Your task to perform on an android device: Go to Yahoo.com Image 0: 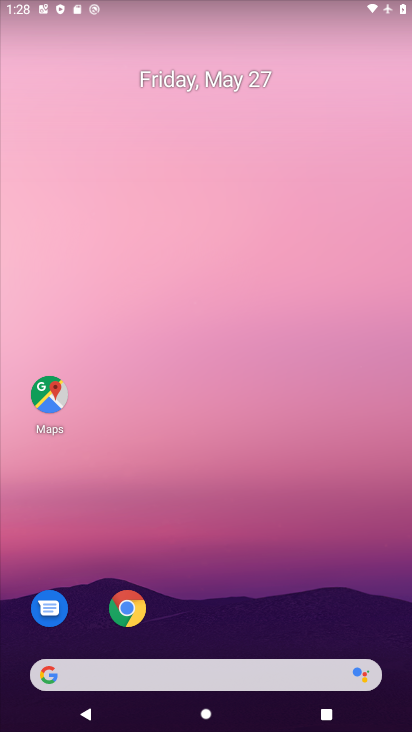
Step 0: press home button
Your task to perform on an android device: Go to Yahoo.com Image 1: 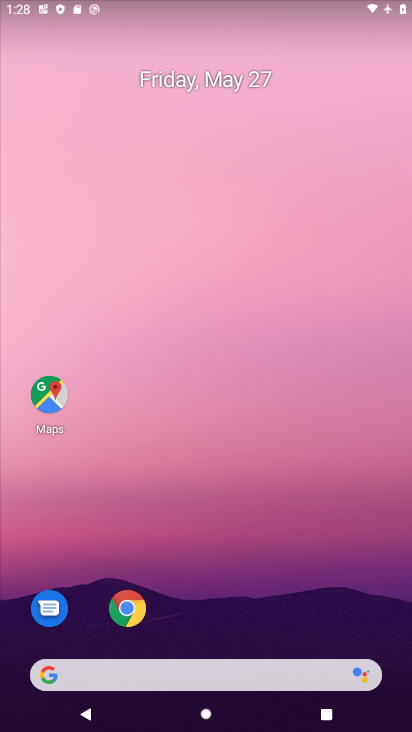
Step 1: click (130, 604)
Your task to perform on an android device: Go to Yahoo.com Image 2: 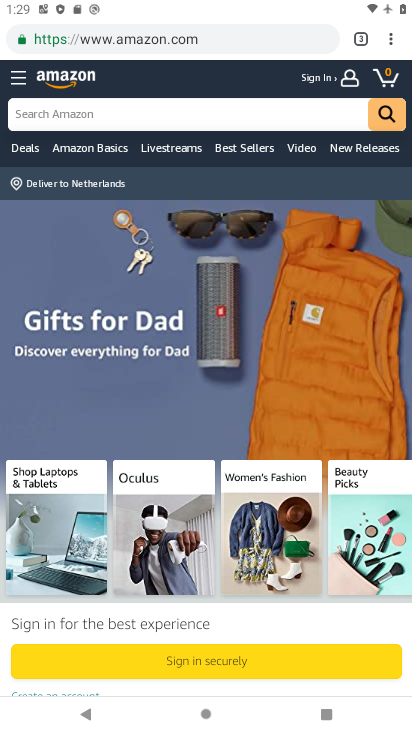
Step 2: drag from (387, 41) to (296, 74)
Your task to perform on an android device: Go to Yahoo.com Image 3: 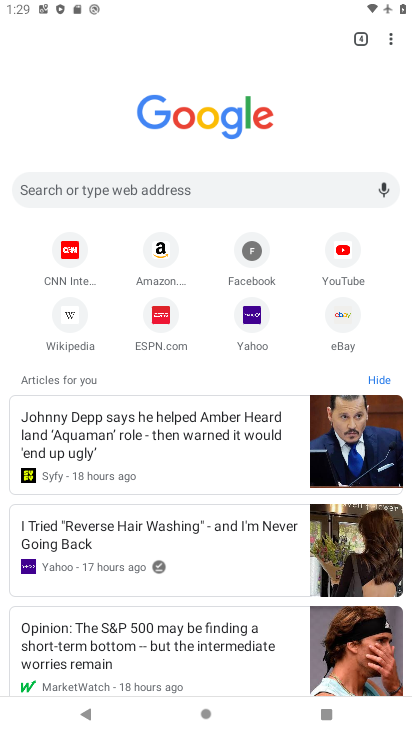
Step 3: click (259, 319)
Your task to perform on an android device: Go to Yahoo.com Image 4: 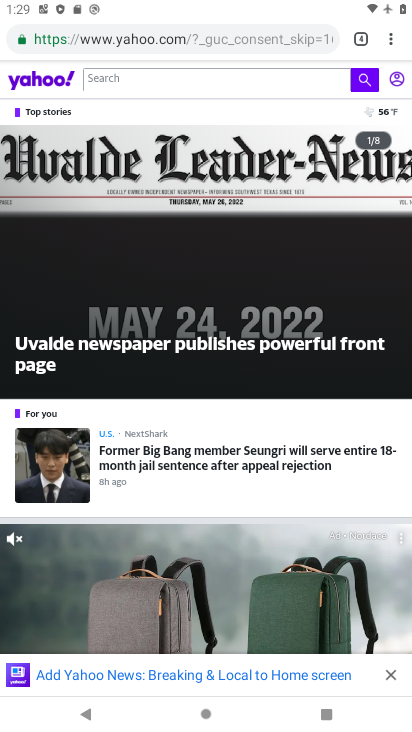
Step 4: task complete